Your task to perform on an android device: When is my next meeting? Image 0: 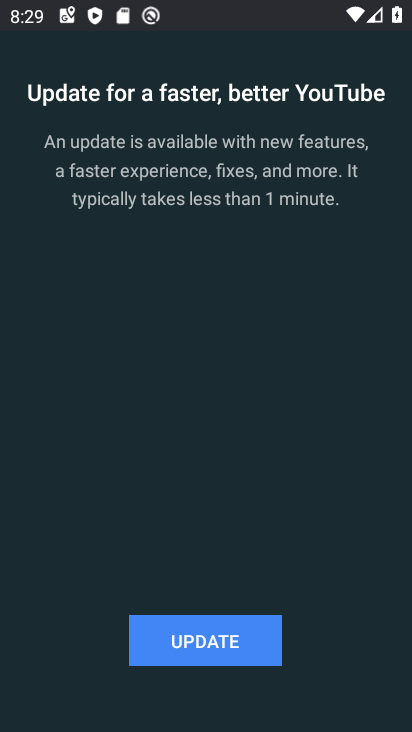
Step 0: press home button
Your task to perform on an android device: When is my next meeting? Image 1: 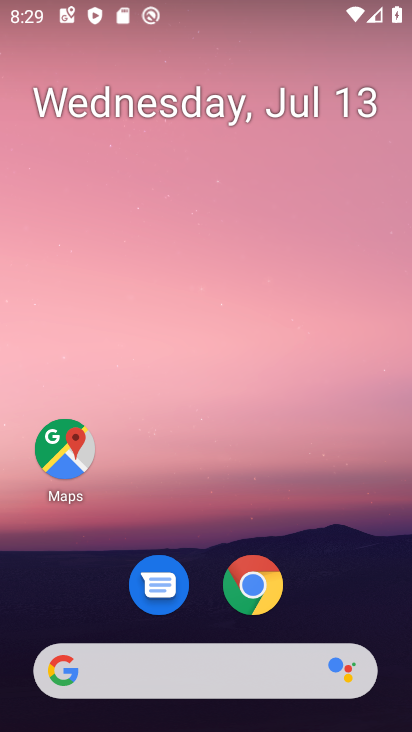
Step 1: drag from (227, 515) to (239, 0)
Your task to perform on an android device: When is my next meeting? Image 2: 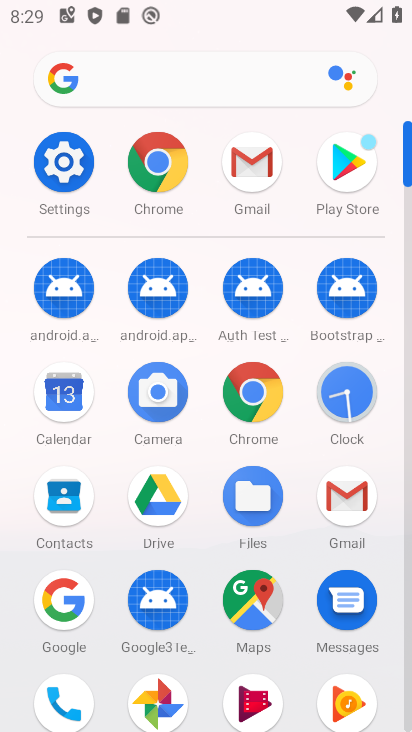
Step 2: click (66, 405)
Your task to perform on an android device: When is my next meeting? Image 3: 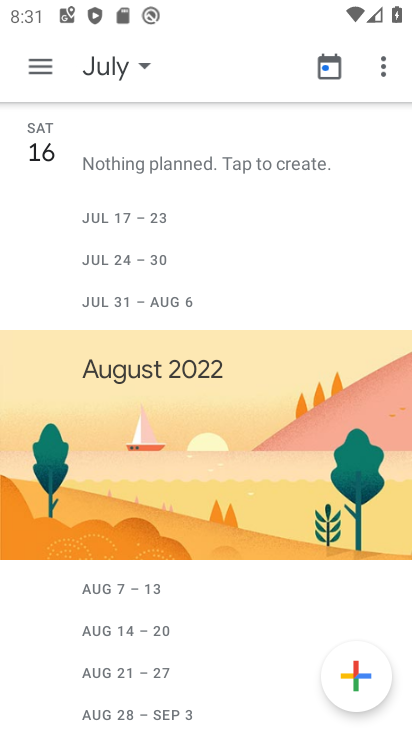
Step 3: task complete